Your task to perform on an android device: toggle javascript in the chrome app Image 0: 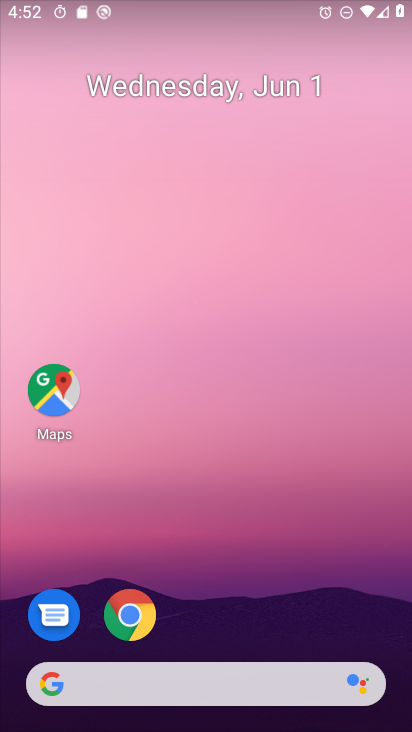
Step 0: drag from (319, 651) to (293, 121)
Your task to perform on an android device: toggle javascript in the chrome app Image 1: 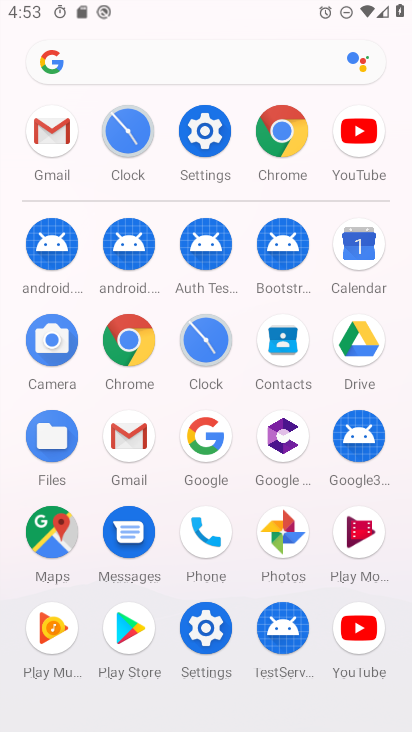
Step 1: click (119, 342)
Your task to perform on an android device: toggle javascript in the chrome app Image 2: 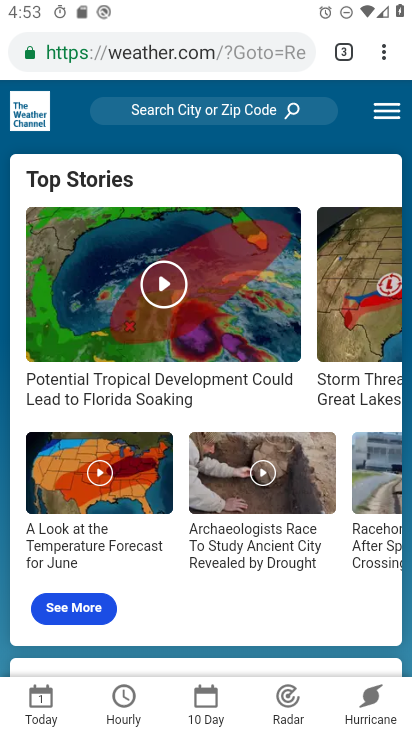
Step 2: drag from (381, 45) to (208, 626)
Your task to perform on an android device: toggle javascript in the chrome app Image 3: 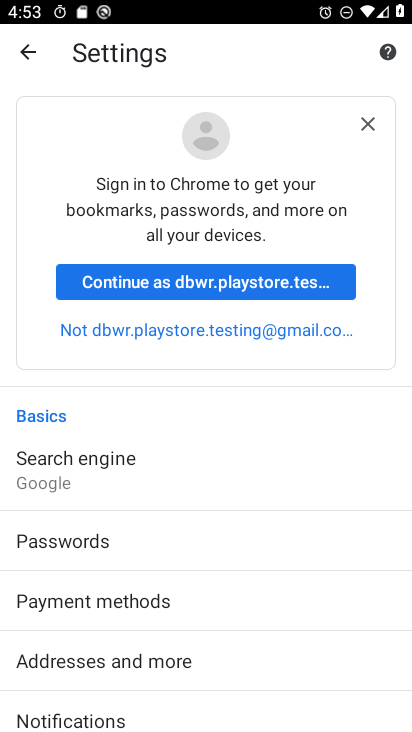
Step 3: drag from (190, 675) to (193, 46)
Your task to perform on an android device: toggle javascript in the chrome app Image 4: 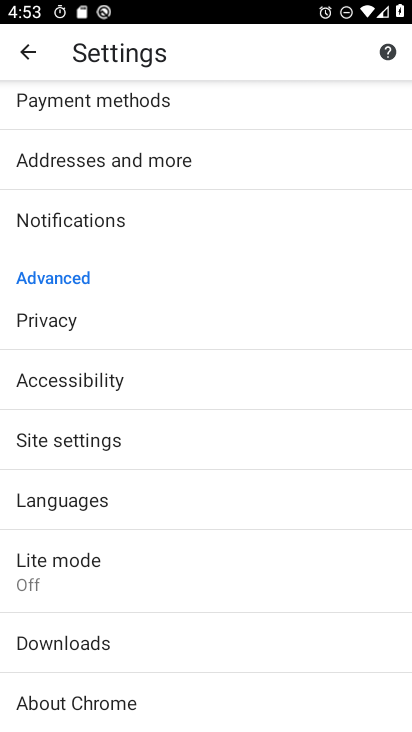
Step 4: click (87, 441)
Your task to perform on an android device: toggle javascript in the chrome app Image 5: 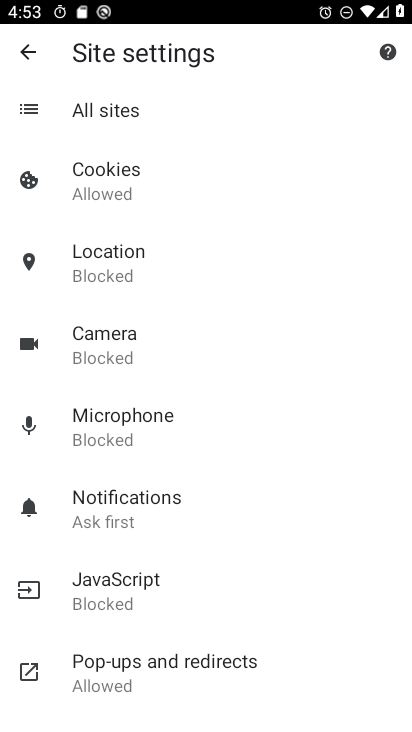
Step 5: click (147, 594)
Your task to perform on an android device: toggle javascript in the chrome app Image 6: 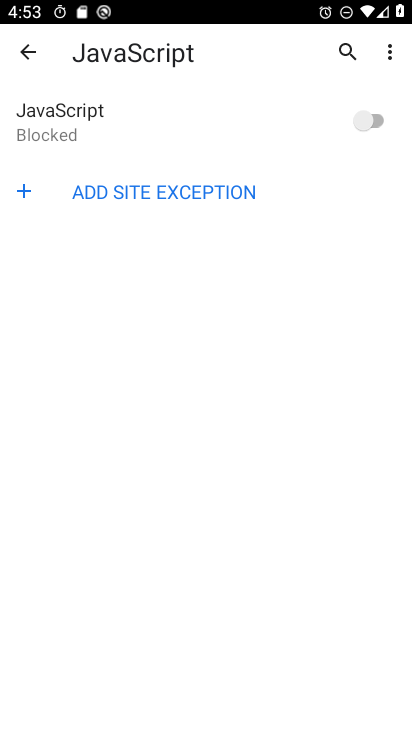
Step 6: click (369, 116)
Your task to perform on an android device: toggle javascript in the chrome app Image 7: 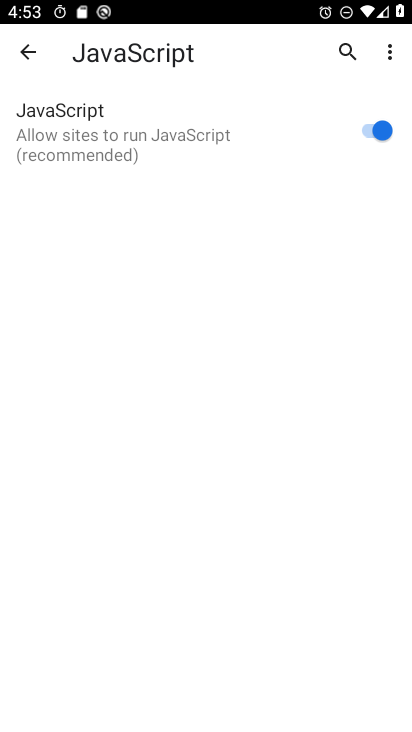
Step 7: task complete